Your task to perform on an android device: change notifications settings Image 0: 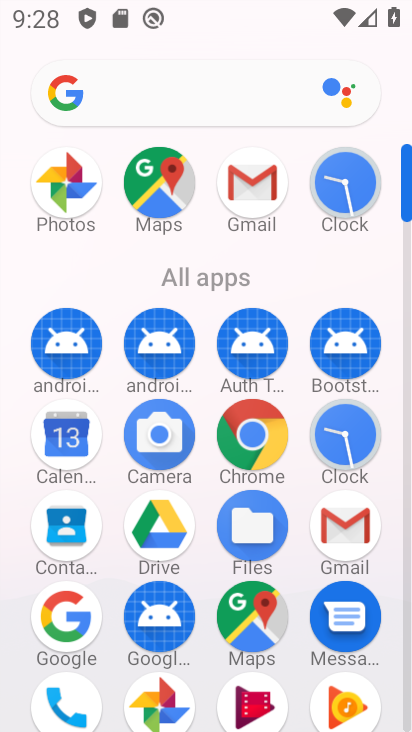
Step 0: drag from (381, 580) to (396, 245)
Your task to perform on an android device: change notifications settings Image 1: 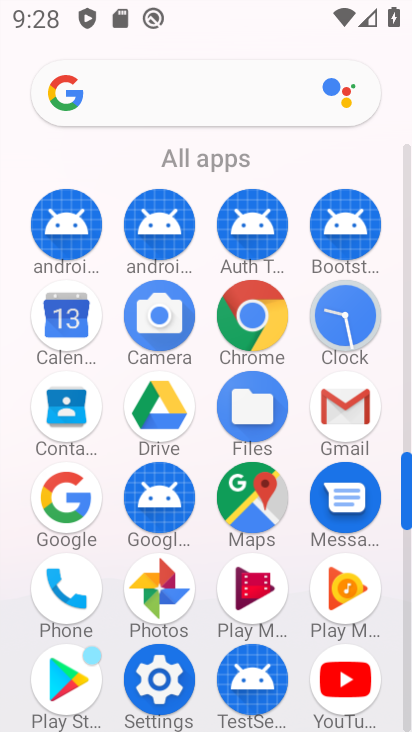
Step 1: click (162, 671)
Your task to perform on an android device: change notifications settings Image 2: 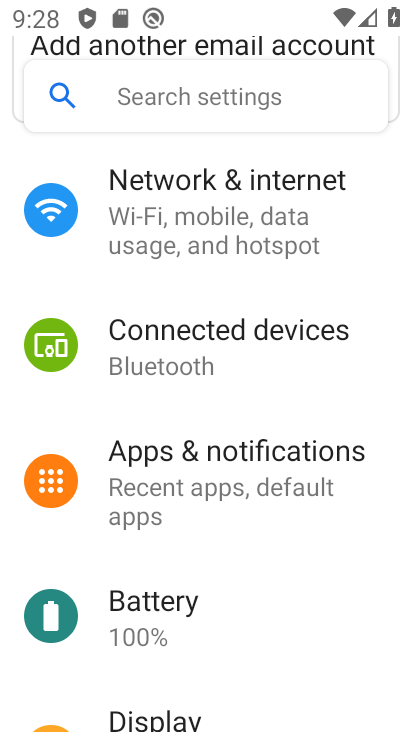
Step 2: drag from (375, 355) to (381, 438)
Your task to perform on an android device: change notifications settings Image 3: 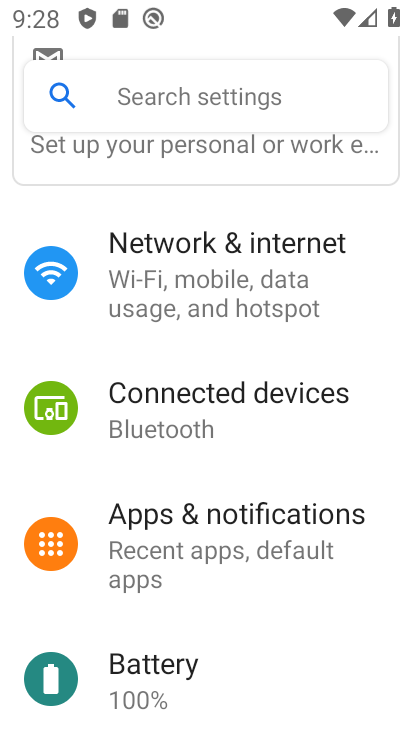
Step 3: click (356, 533)
Your task to perform on an android device: change notifications settings Image 4: 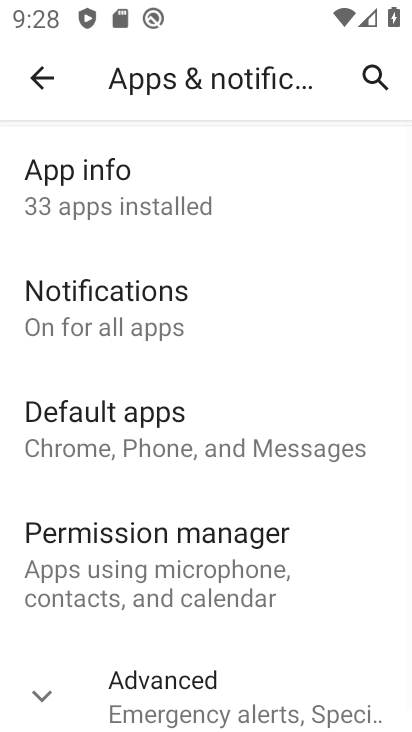
Step 4: click (167, 292)
Your task to perform on an android device: change notifications settings Image 5: 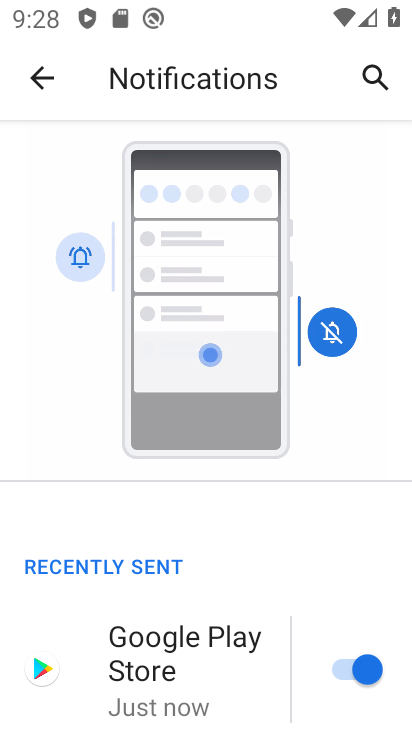
Step 5: drag from (329, 501) to (334, 424)
Your task to perform on an android device: change notifications settings Image 6: 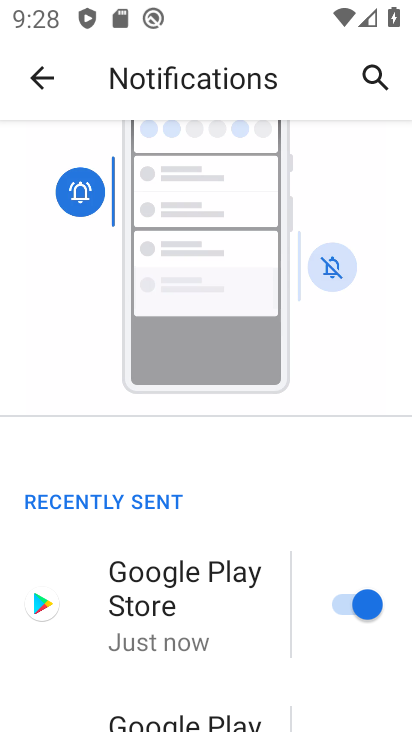
Step 6: drag from (323, 495) to (318, 359)
Your task to perform on an android device: change notifications settings Image 7: 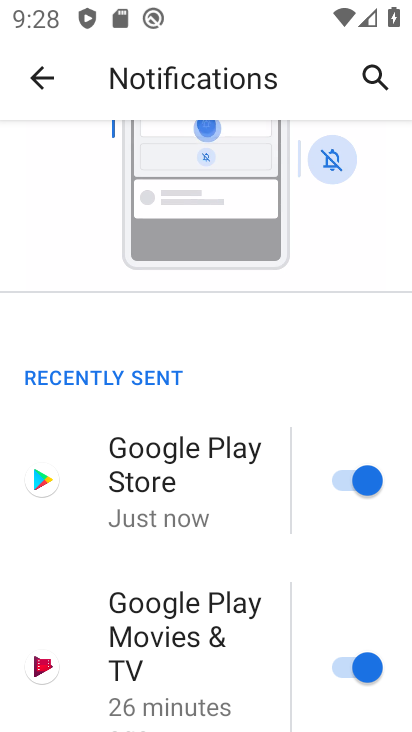
Step 7: drag from (317, 439) to (299, 250)
Your task to perform on an android device: change notifications settings Image 8: 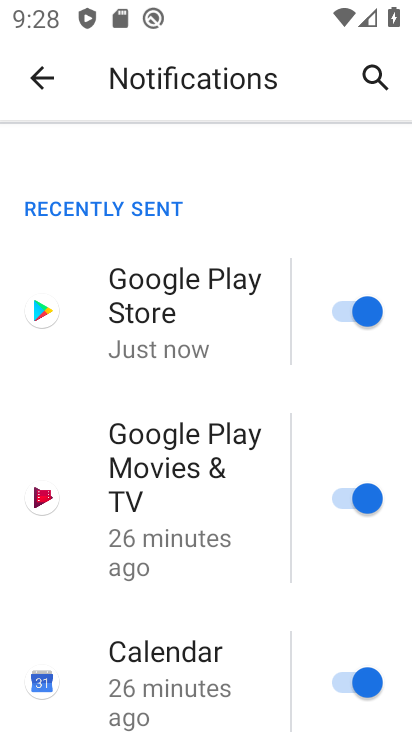
Step 8: drag from (256, 393) to (252, 272)
Your task to perform on an android device: change notifications settings Image 9: 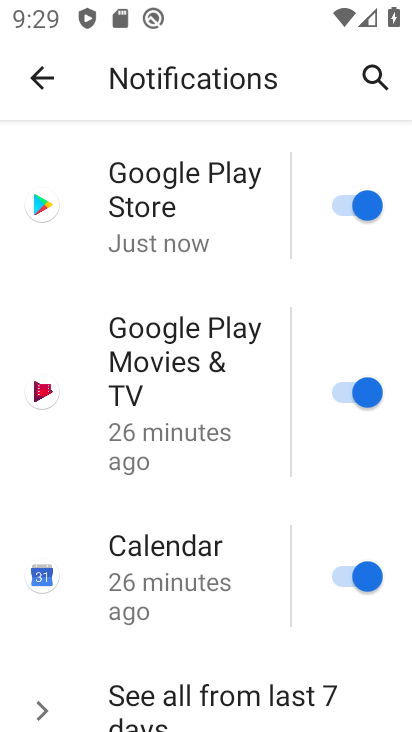
Step 9: click (358, 214)
Your task to perform on an android device: change notifications settings Image 10: 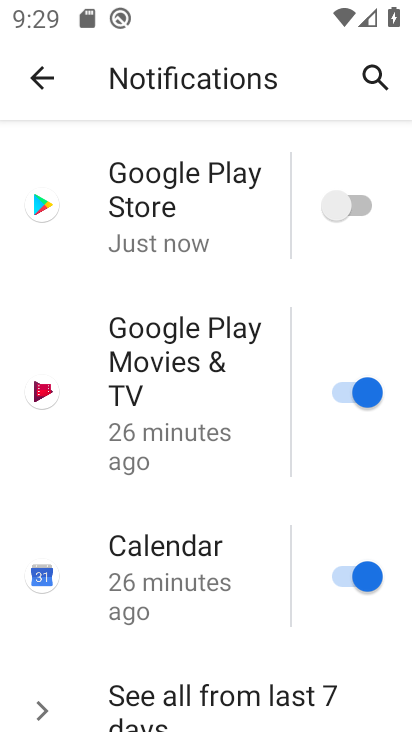
Step 10: click (342, 395)
Your task to perform on an android device: change notifications settings Image 11: 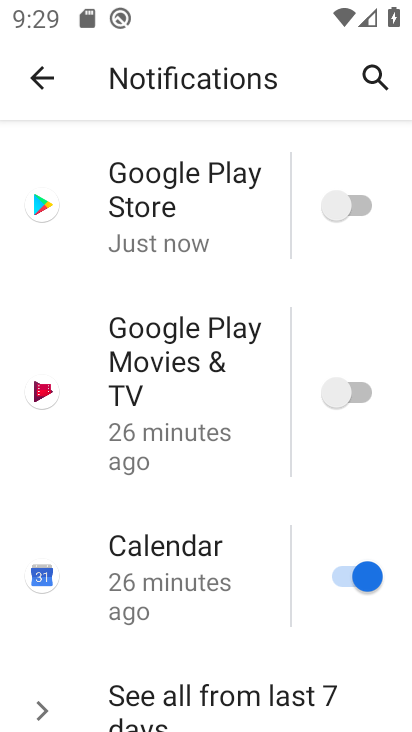
Step 11: click (360, 574)
Your task to perform on an android device: change notifications settings Image 12: 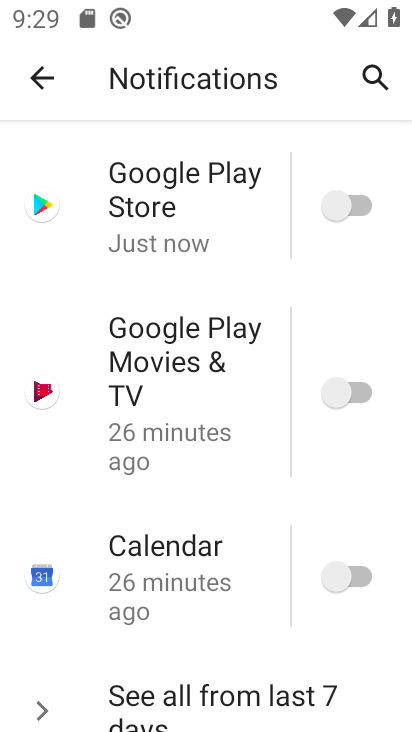
Step 12: task complete